Your task to perform on an android device: open app "Lyft - Rideshare, Bikes, Scooters & Transit" (install if not already installed) Image 0: 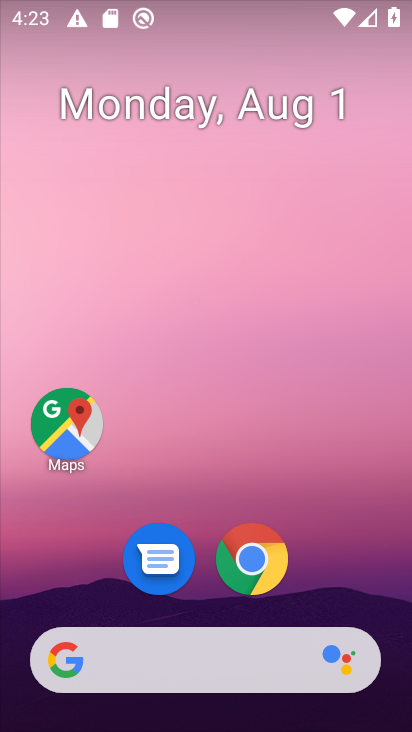
Step 0: drag from (200, 555) to (195, 58)
Your task to perform on an android device: open app "Lyft - Rideshare, Bikes, Scooters & Transit" (install if not already installed) Image 1: 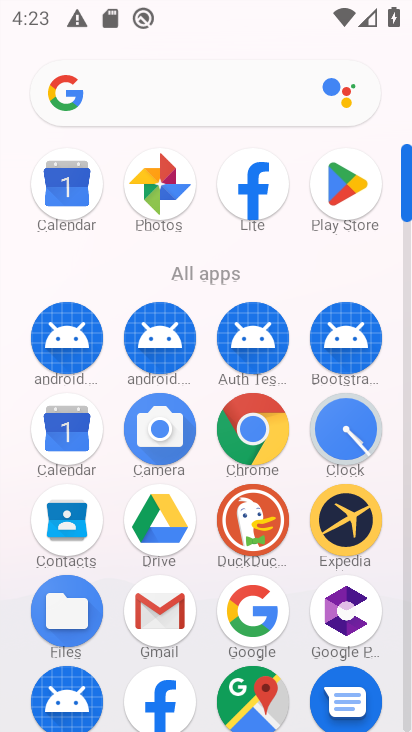
Step 1: click (355, 189)
Your task to perform on an android device: open app "Lyft - Rideshare, Bikes, Scooters & Transit" (install if not already installed) Image 2: 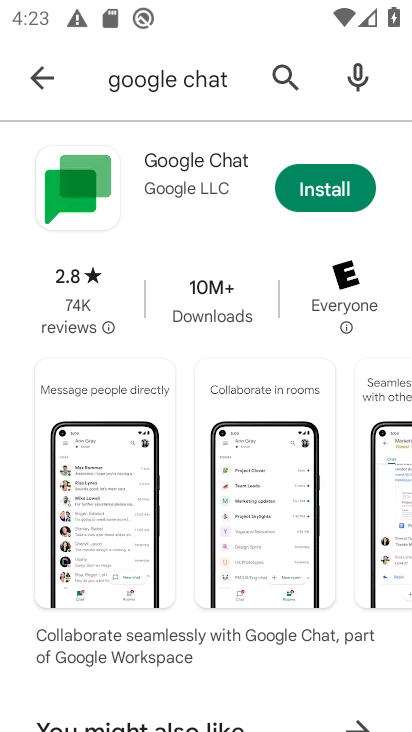
Step 2: click (203, 69)
Your task to perform on an android device: open app "Lyft - Rideshare, Bikes, Scooters & Transit" (install if not already installed) Image 3: 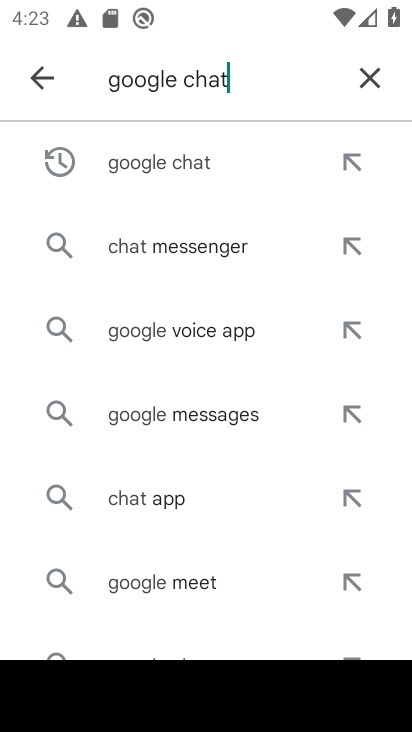
Step 3: click (361, 66)
Your task to perform on an android device: open app "Lyft - Rideshare, Bikes, Scooters & Transit" (install if not already installed) Image 4: 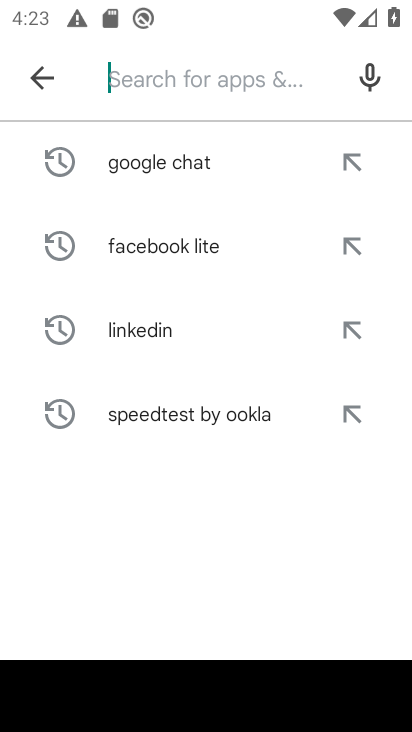
Step 4: type "lyft"
Your task to perform on an android device: open app "Lyft - Rideshare, Bikes, Scooters & Transit" (install if not already installed) Image 5: 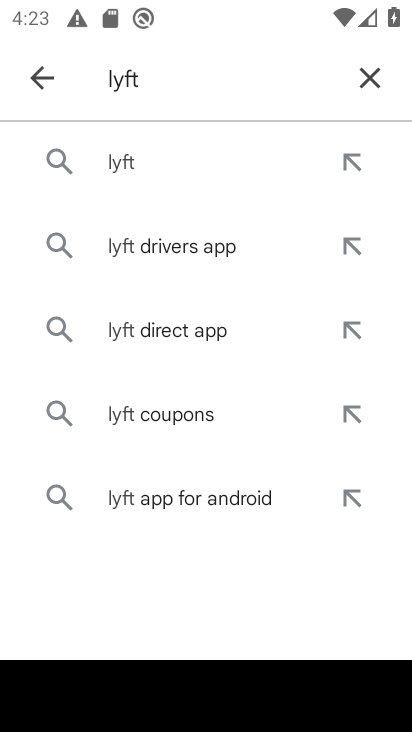
Step 5: click (145, 147)
Your task to perform on an android device: open app "Lyft - Rideshare, Bikes, Scooters & Transit" (install if not already installed) Image 6: 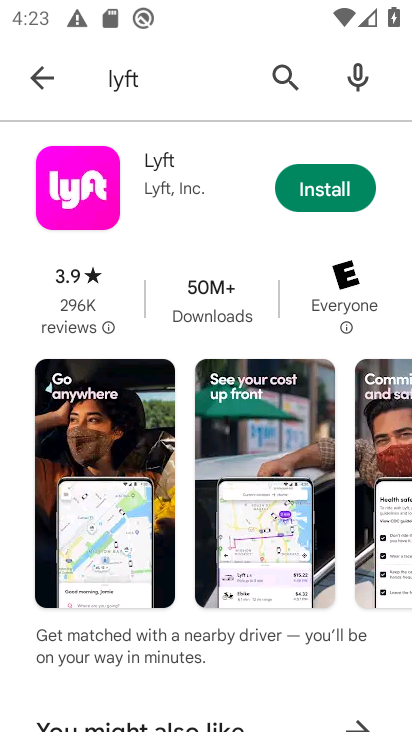
Step 6: click (344, 186)
Your task to perform on an android device: open app "Lyft - Rideshare, Bikes, Scooters & Transit" (install if not already installed) Image 7: 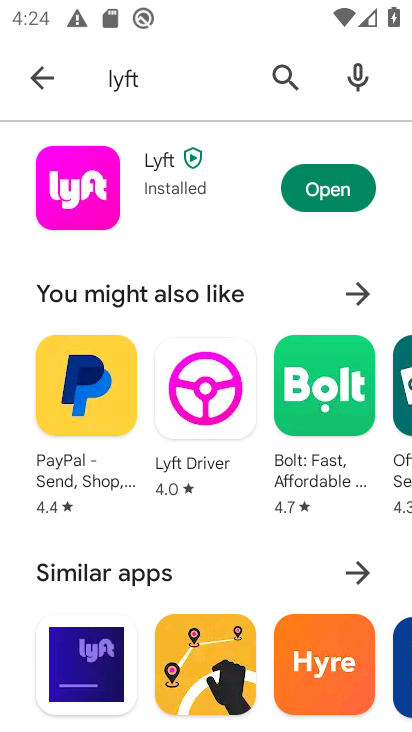
Step 7: click (337, 188)
Your task to perform on an android device: open app "Lyft - Rideshare, Bikes, Scooters & Transit" (install if not already installed) Image 8: 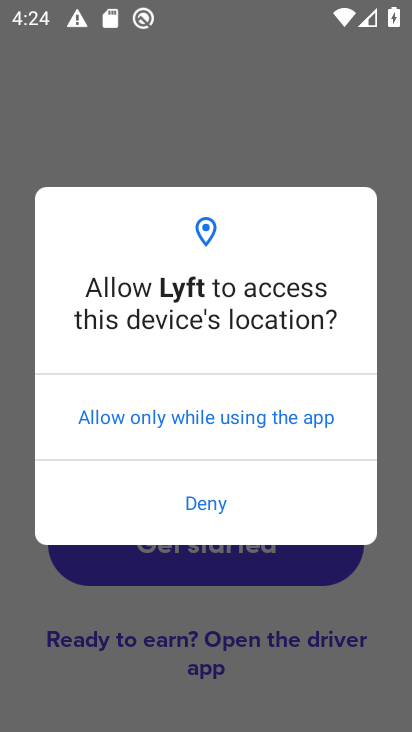
Step 8: click (232, 420)
Your task to perform on an android device: open app "Lyft - Rideshare, Bikes, Scooters & Transit" (install if not already installed) Image 9: 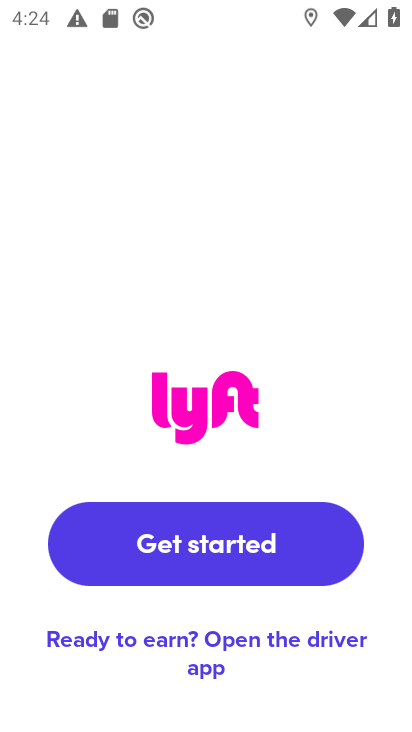
Step 9: click (268, 563)
Your task to perform on an android device: open app "Lyft - Rideshare, Bikes, Scooters & Transit" (install if not already installed) Image 10: 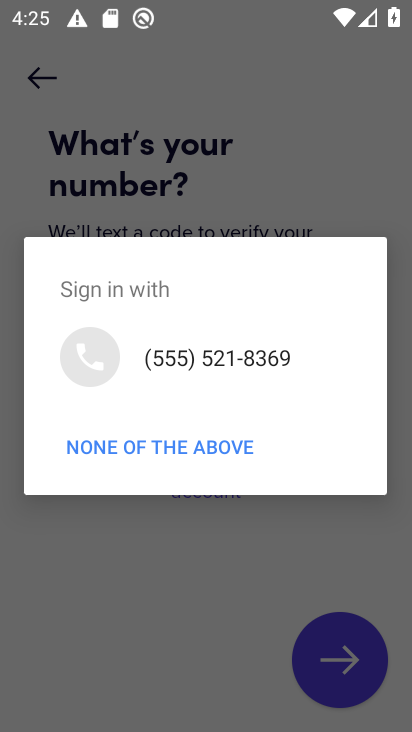
Step 10: click (248, 351)
Your task to perform on an android device: open app "Lyft - Rideshare, Bikes, Scooters & Transit" (install if not already installed) Image 11: 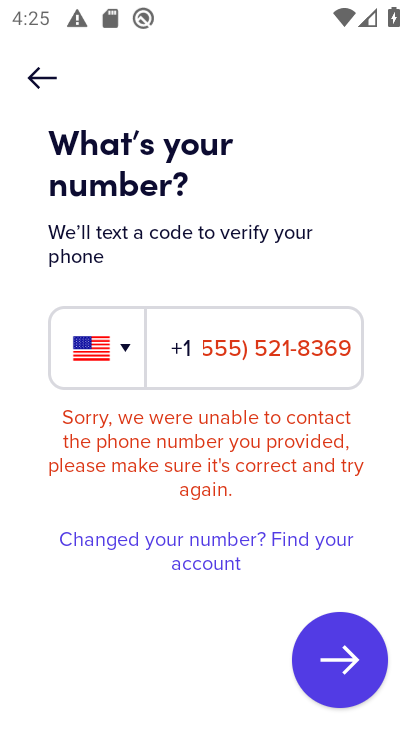
Step 11: click (341, 664)
Your task to perform on an android device: open app "Lyft - Rideshare, Bikes, Scooters & Transit" (install if not already installed) Image 12: 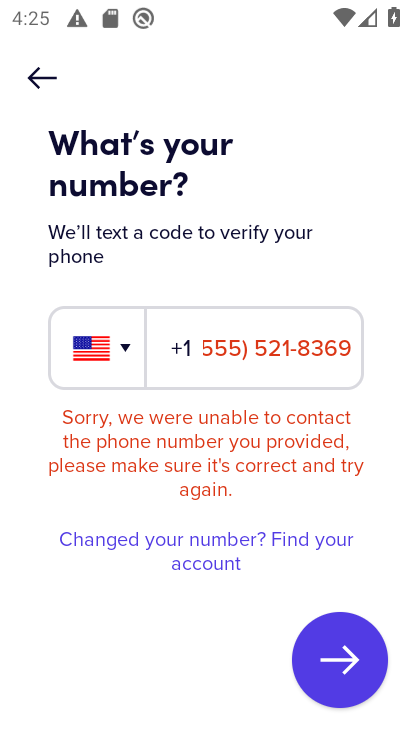
Step 12: task complete